Your task to perform on an android device: turn on bluetooth scan Image 0: 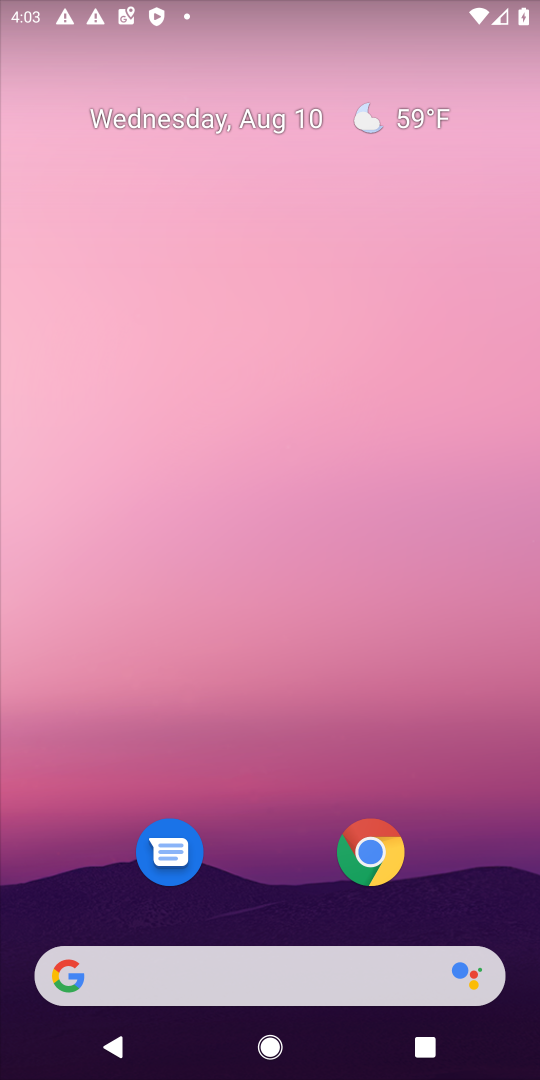
Step 0: drag from (460, 486) to (487, 151)
Your task to perform on an android device: turn on bluetooth scan Image 1: 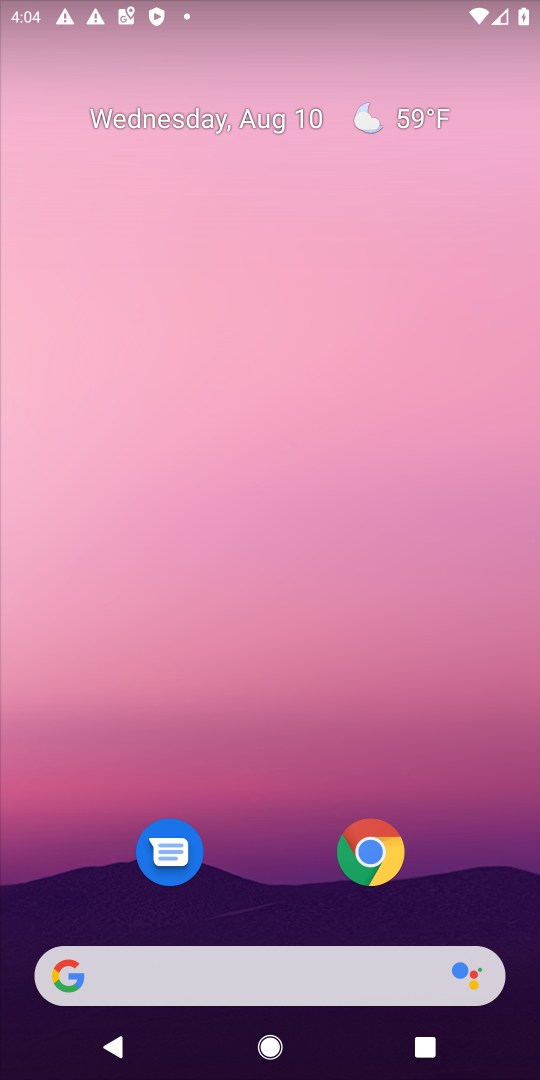
Step 1: drag from (285, 855) to (380, 149)
Your task to perform on an android device: turn on bluetooth scan Image 2: 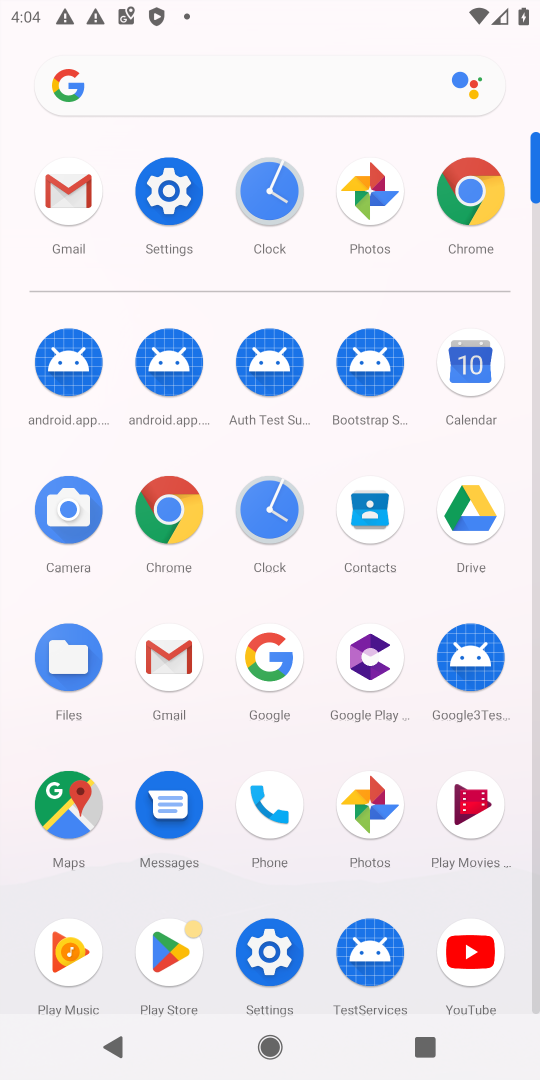
Step 2: click (273, 941)
Your task to perform on an android device: turn on bluetooth scan Image 3: 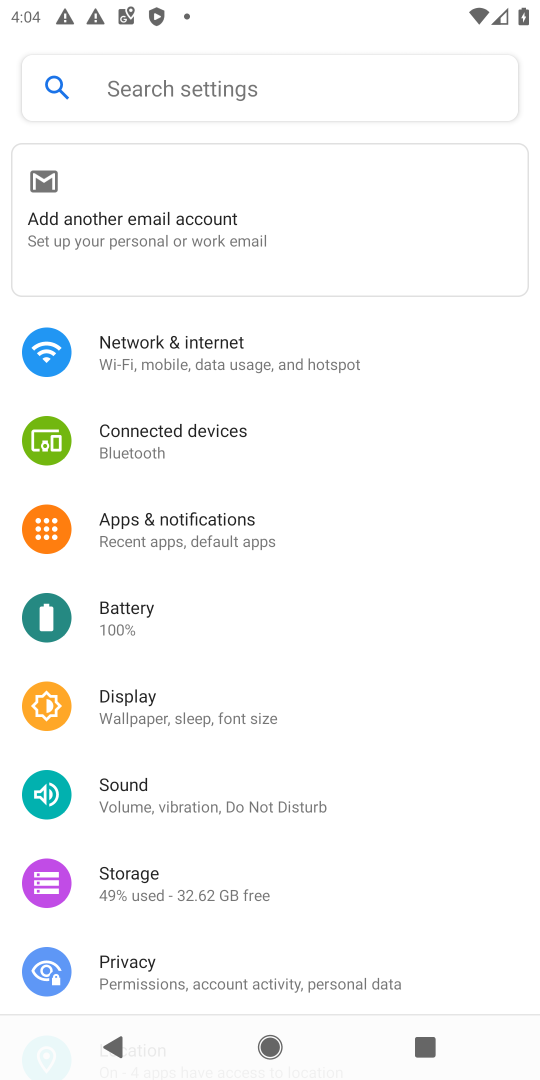
Step 3: drag from (292, 829) to (456, 287)
Your task to perform on an android device: turn on bluetooth scan Image 4: 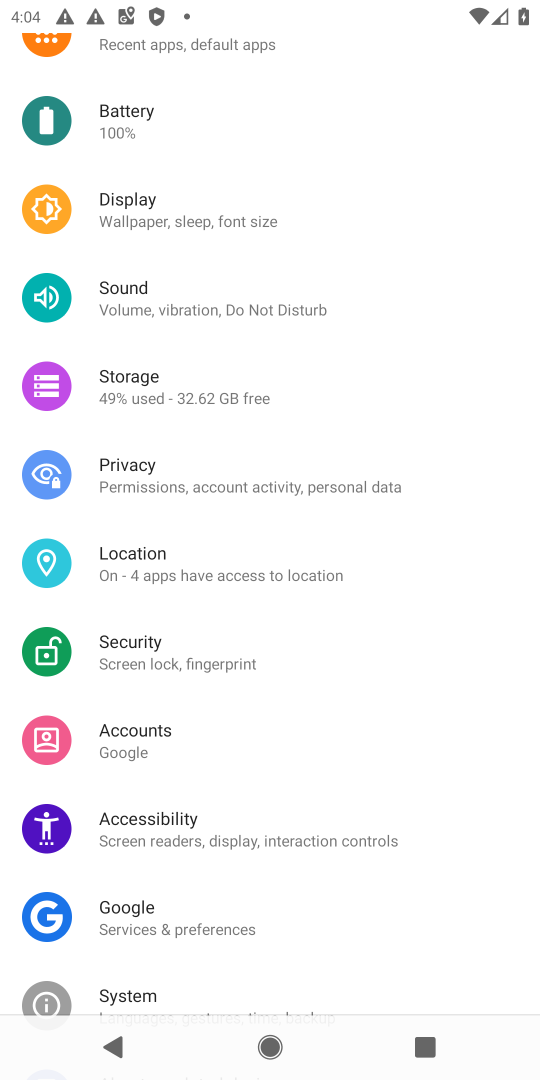
Step 4: click (187, 581)
Your task to perform on an android device: turn on bluetooth scan Image 5: 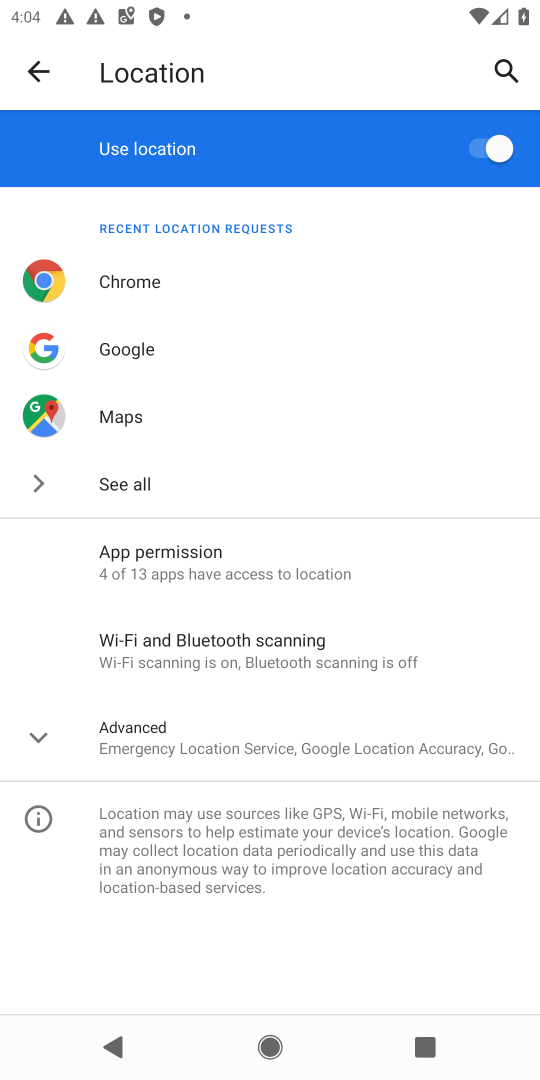
Step 5: click (195, 660)
Your task to perform on an android device: turn on bluetooth scan Image 6: 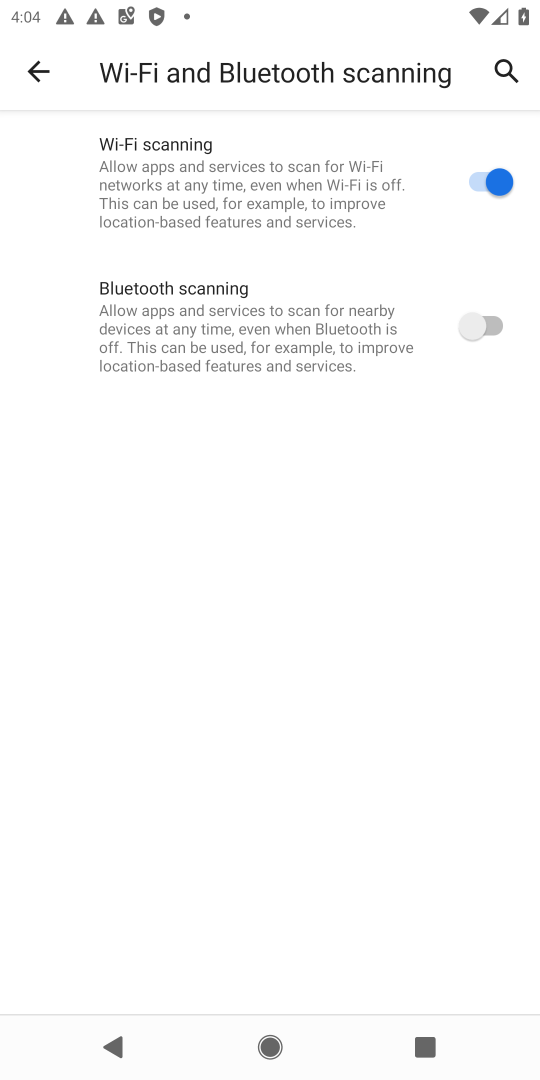
Step 6: click (481, 317)
Your task to perform on an android device: turn on bluetooth scan Image 7: 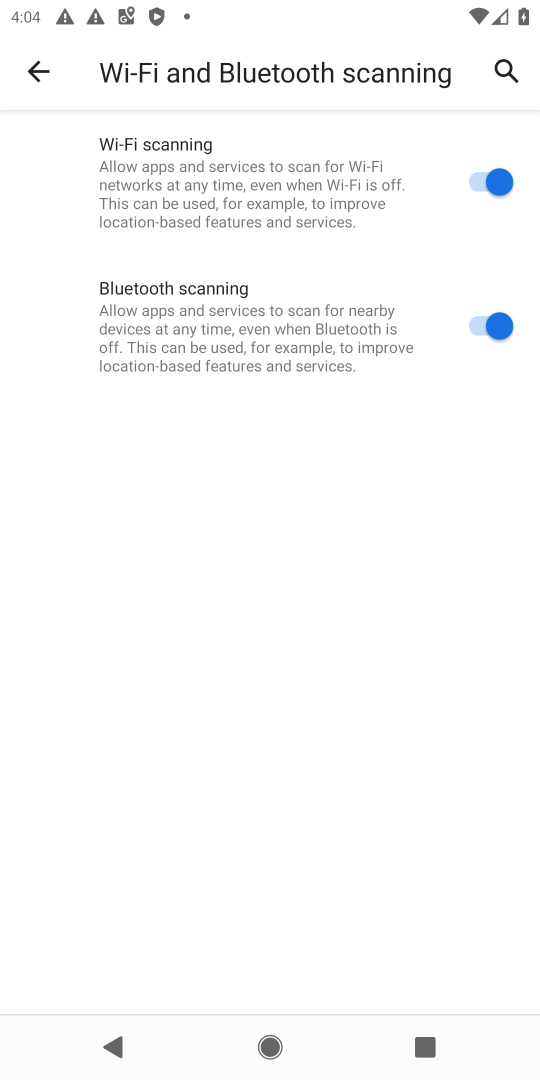
Step 7: task complete